Your task to perform on an android device: toggle priority inbox in the gmail app Image 0: 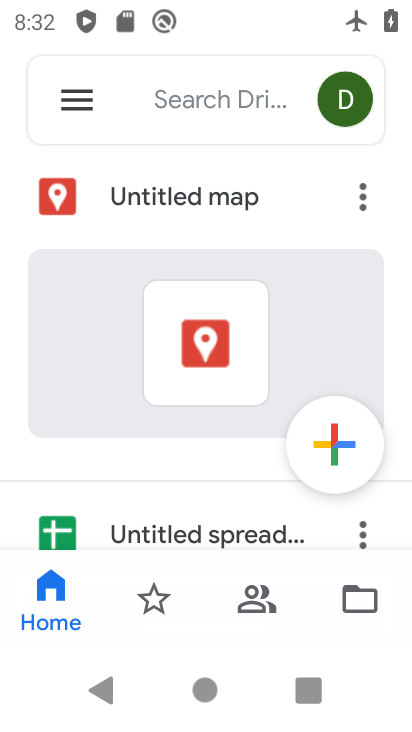
Step 0: press home button
Your task to perform on an android device: toggle priority inbox in the gmail app Image 1: 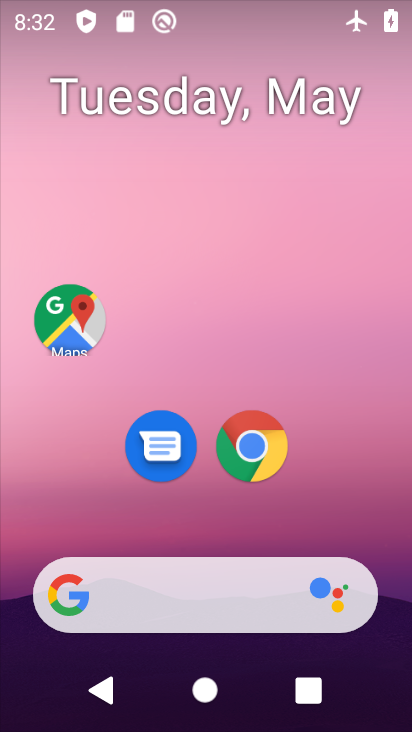
Step 1: drag from (392, 565) to (373, 232)
Your task to perform on an android device: toggle priority inbox in the gmail app Image 2: 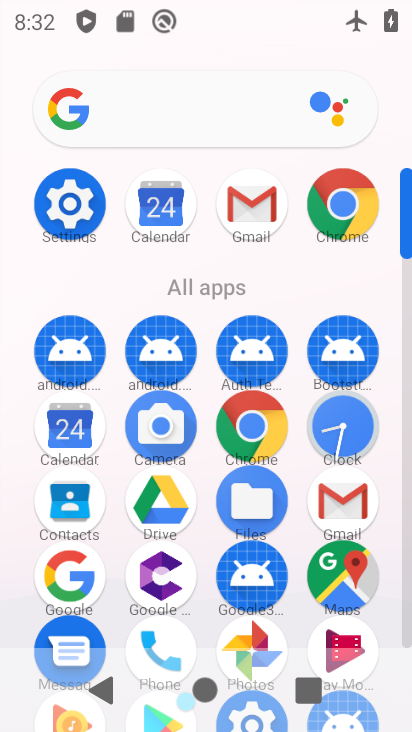
Step 2: click (254, 220)
Your task to perform on an android device: toggle priority inbox in the gmail app Image 3: 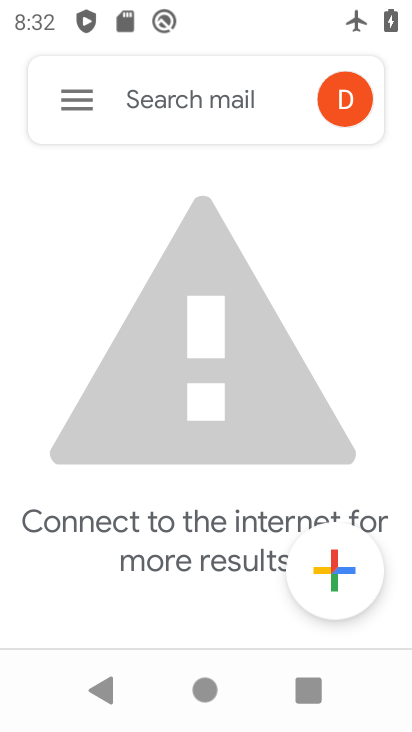
Step 3: click (85, 111)
Your task to perform on an android device: toggle priority inbox in the gmail app Image 4: 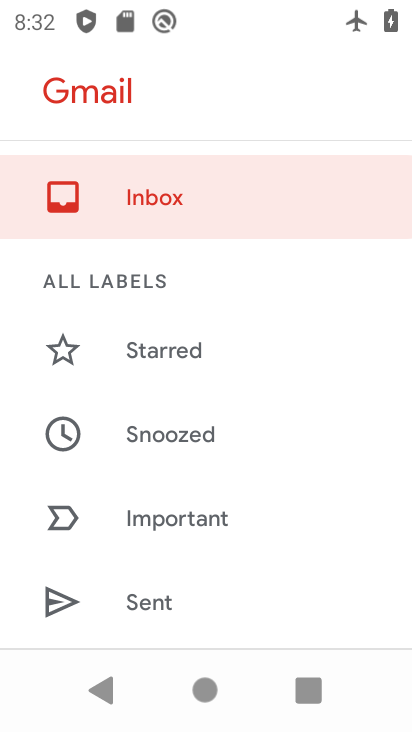
Step 4: drag from (318, 559) to (321, 447)
Your task to perform on an android device: toggle priority inbox in the gmail app Image 5: 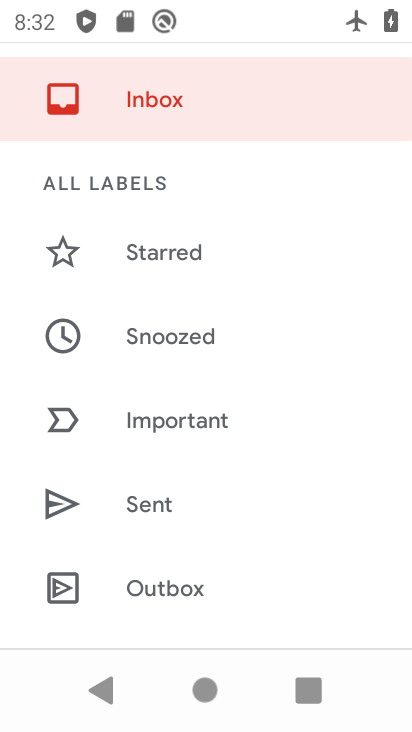
Step 5: drag from (348, 583) to (353, 503)
Your task to perform on an android device: toggle priority inbox in the gmail app Image 6: 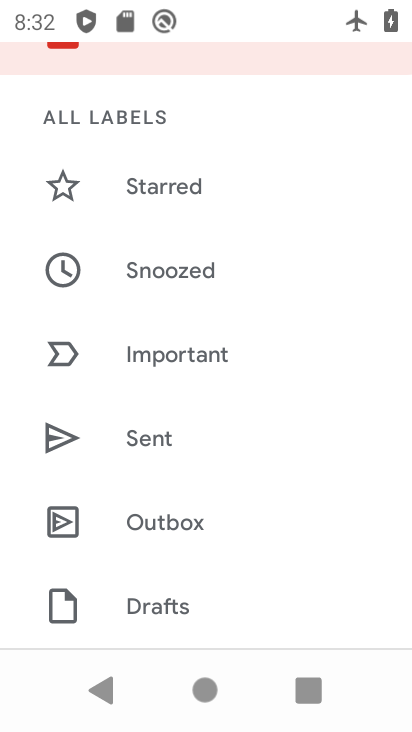
Step 6: drag from (367, 597) to (371, 513)
Your task to perform on an android device: toggle priority inbox in the gmail app Image 7: 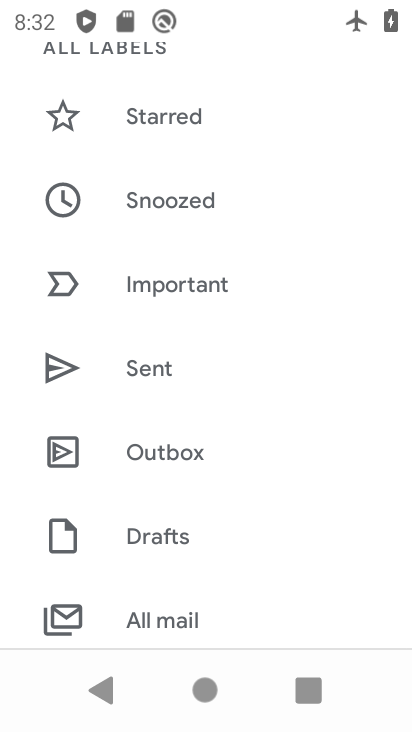
Step 7: drag from (381, 610) to (380, 530)
Your task to perform on an android device: toggle priority inbox in the gmail app Image 8: 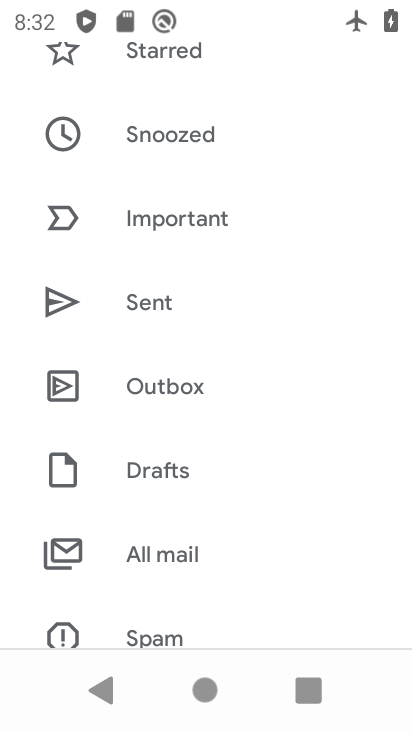
Step 8: drag from (376, 606) to (382, 523)
Your task to perform on an android device: toggle priority inbox in the gmail app Image 9: 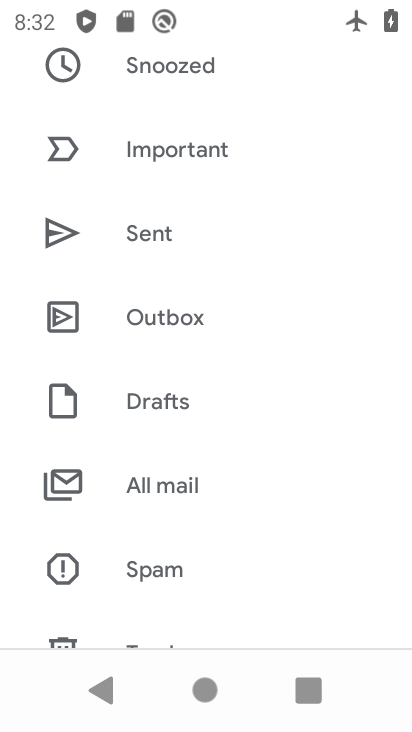
Step 9: drag from (384, 592) to (370, 503)
Your task to perform on an android device: toggle priority inbox in the gmail app Image 10: 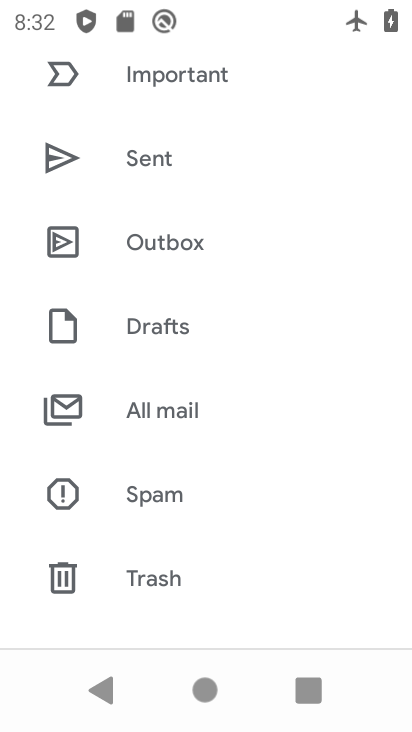
Step 10: drag from (375, 582) to (373, 498)
Your task to perform on an android device: toggle priority inbox in the gmail app Image 11: 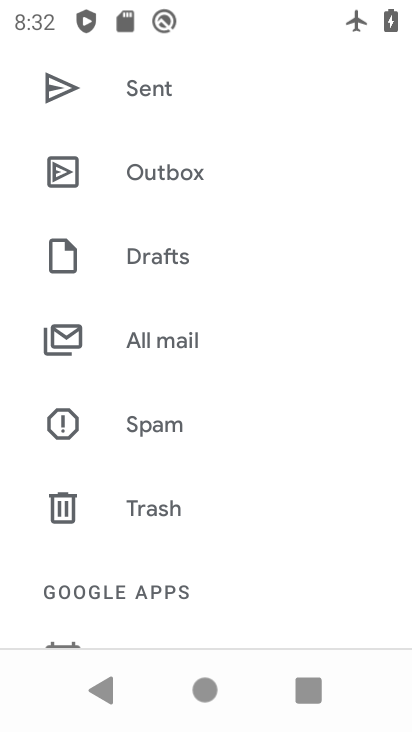
Step 11: drag from (366, 583) to (381, 491)
Your task to perform on an android device: toggle priority inbox in the gmail app Image 12: 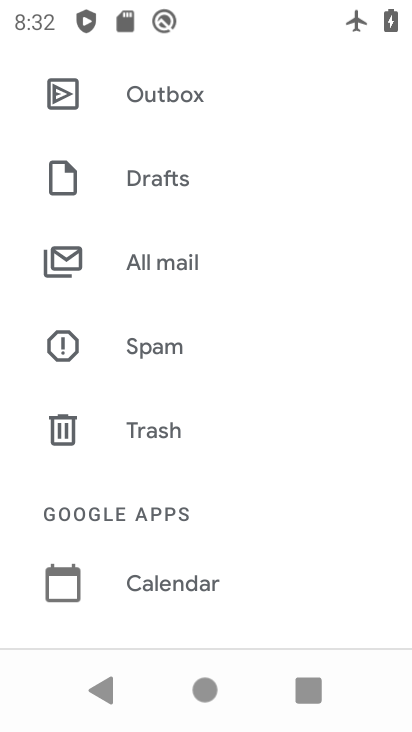
Step 12: drag from (373, 607) to (376, 517)
Your task to perform on an android device: toggle priority inbox in the gmail app Image 13: 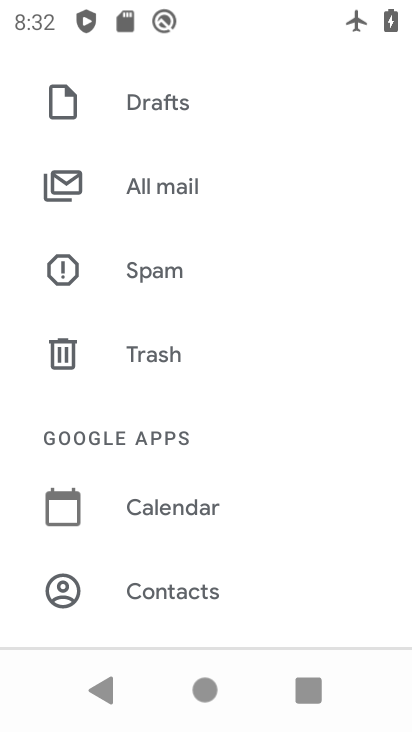
Step 13: drag from (290, 600) to (296, 533)
Your task to perform on an android device: toggle priority inbox in the gmail app Image 14: 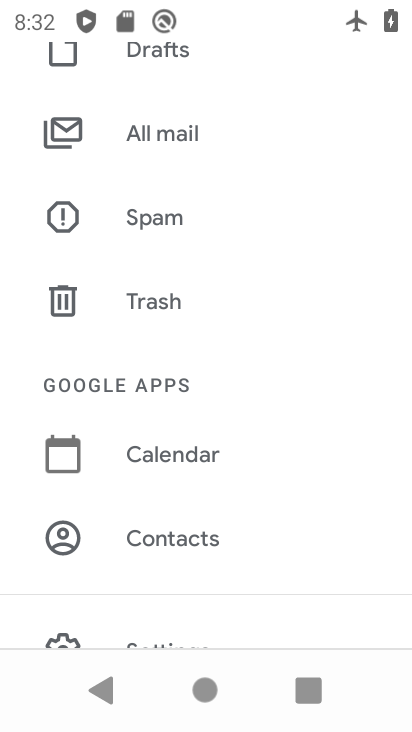
Step 14: drag from (359, 610) to (357, 512)
Your task to perform on an android device: toggle priority inbox in the gmail app Image 15: 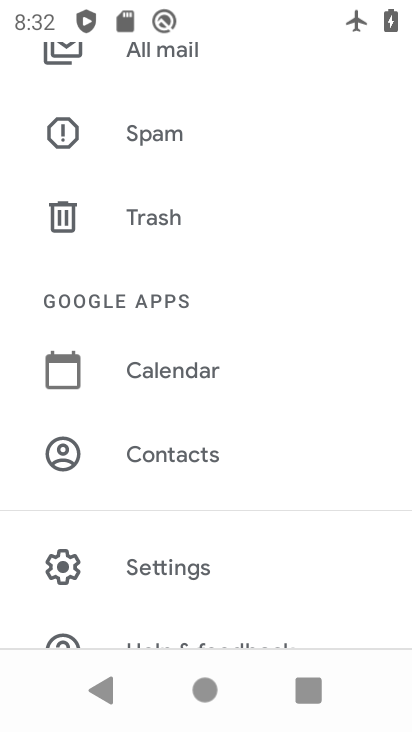
Step 15: click (221, 578)
Your task to perform on an android device: toggle priority inbox in the gmail app Image 16: 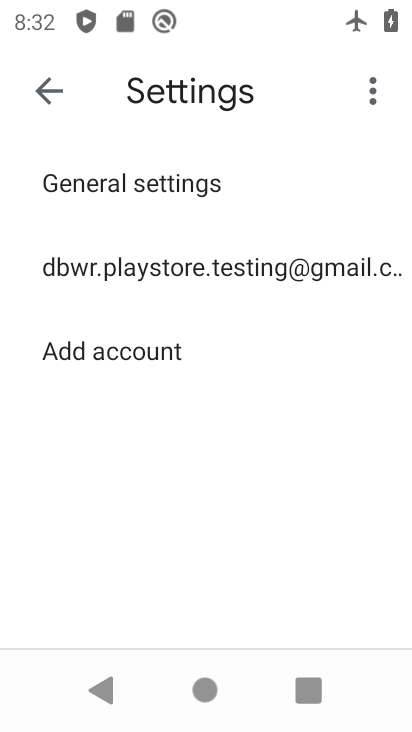
Step 16: click (269, 263)
Your task to perform on an android device: toggle priority inbox in the gmail app Image 17: 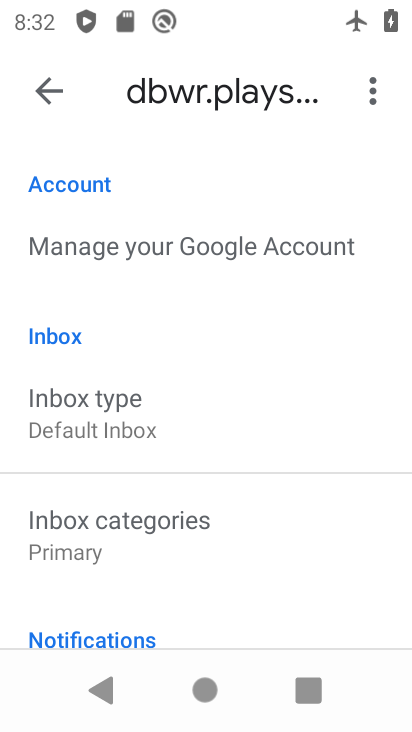
Step 17: drag from (321, 538) to (328, 475)
Your task to perform on an android device: toggle priority inbox in the gmail app Image 18: 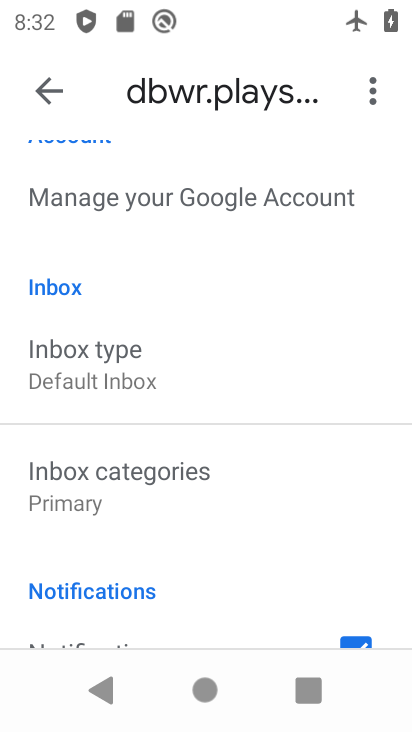
Step 18: drag from (332, 543) to (318, 482)
Your task to perform on an android device: toggle priority inbox in the gmail app Image 19: 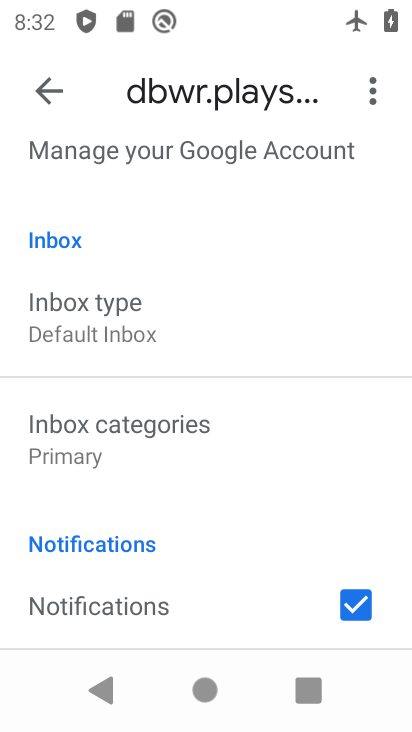
Step 19: click (174, 351)
Your task to perform on an android device: toggle priority inbox in the gmail app Image 20: 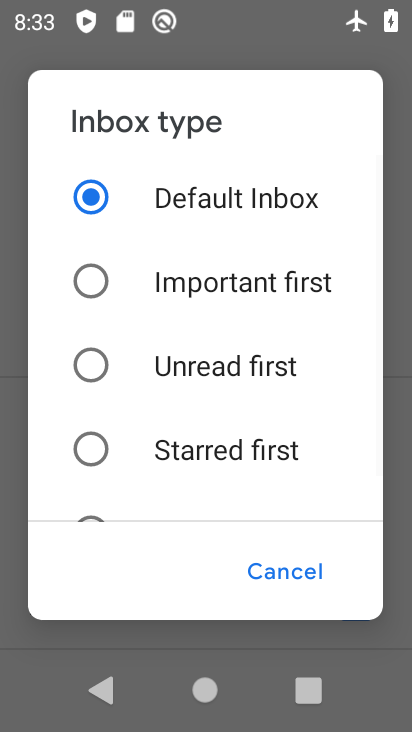
Step 20: drag from (157, 473) to (166, 404)
Your task to perform on an android device: toggle priority inbox in the gmail app Image 21: 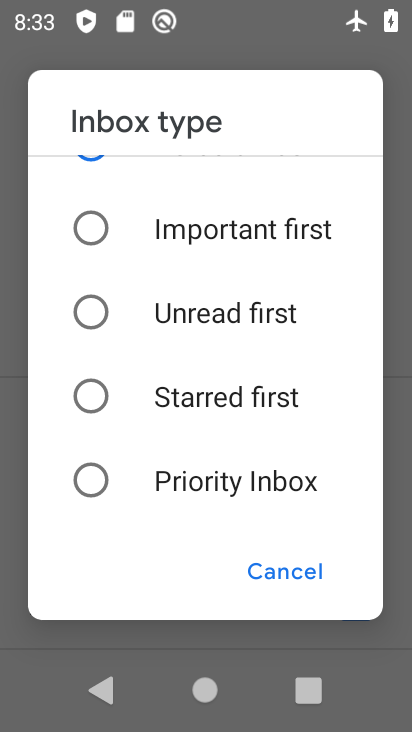
Step 21: click (161, 477)
Your task to perform on an android device: toggle priority inbox in the gmail app Image 22: 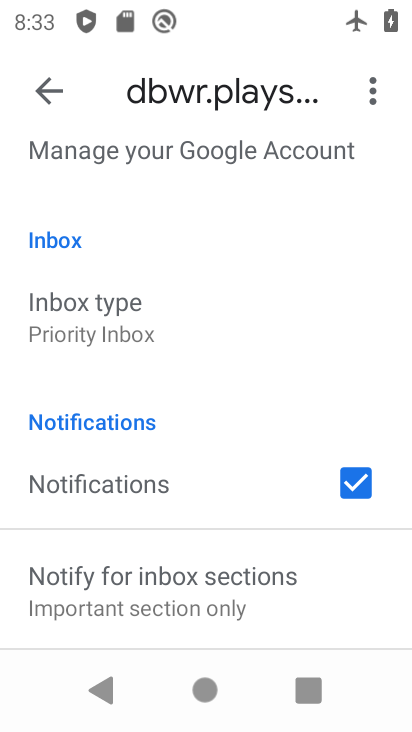
Step 22: task complete